Your task to perform on an android device: Go to Android settings Image 0: 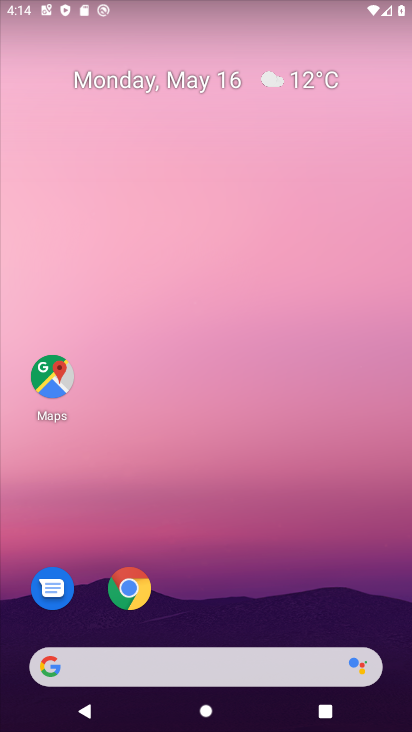
Step 0: drag from (269, 580) to (272, 167)
Your task to perform on an android device: Go to Android settings Image 1: 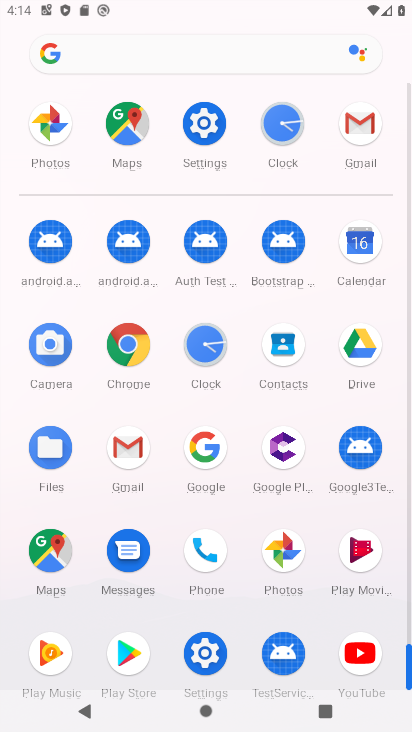
Step 1: click (208, 124)
Your task to perform on an android device: Go to Android settings Image 2: 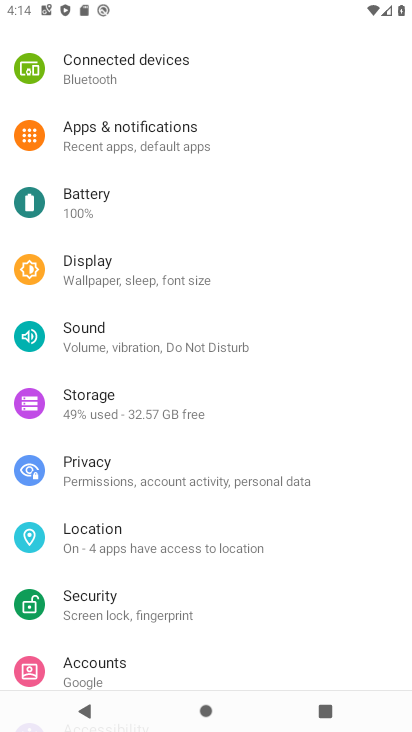
Step 2: drag from (260, 590) to (276, 183)
Your task to perform on an android device: Go to Android settings Image 3: 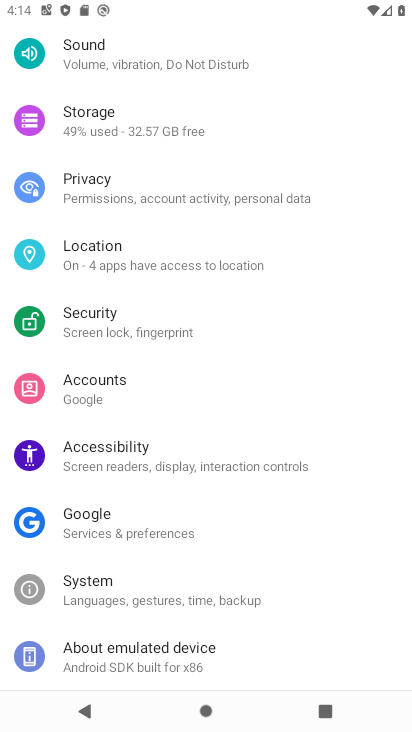
Step 3: click (172, 654)
Your task to perform on an android device: Go to Android settings Image 4: 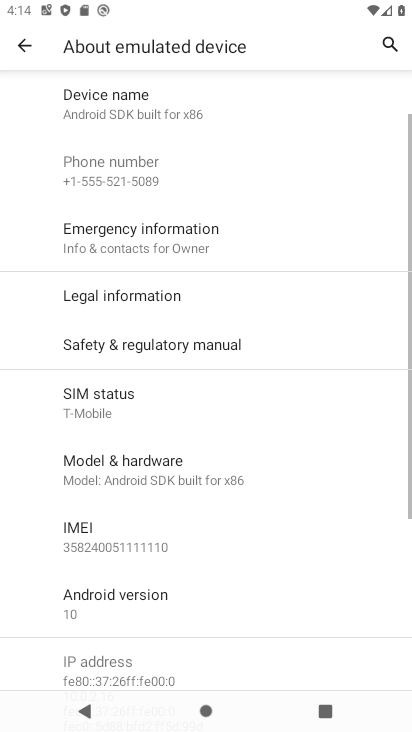
Step 4: click (120, 598)
Your task to perform on an android device: Go to Android settings Image 5: 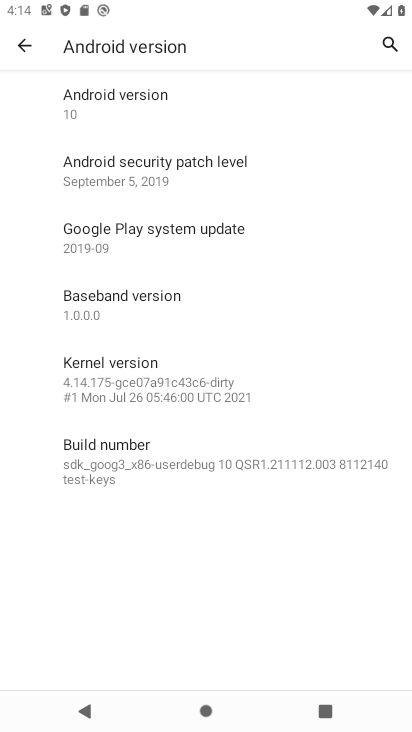
Step 5: task complete